Your task to perform on an android device: turn off translation in the chrome app Image 0: 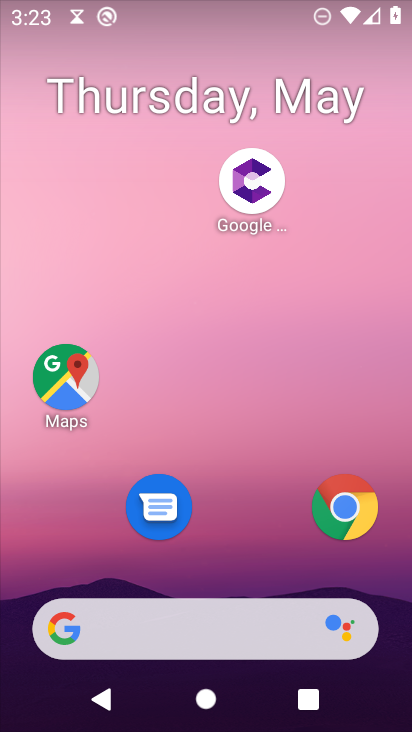
Step 0: click (343, 505)
Your task to perform on an android device: turn off translation in the chrome app Image 1: 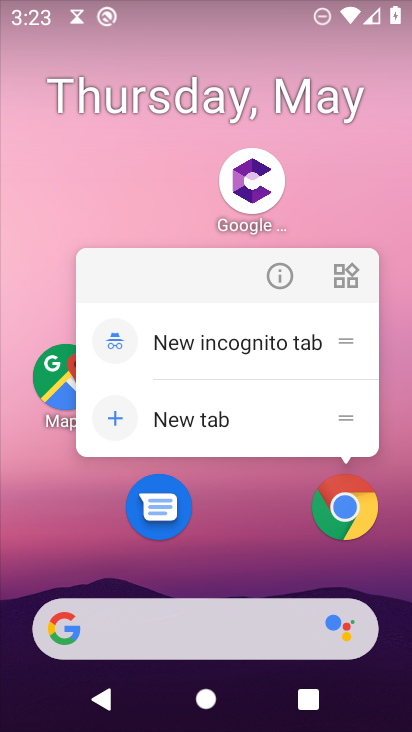
Step 1: click (344, 502)
Your task to perform on an android device: turn off translation in the chrome app Image 2: 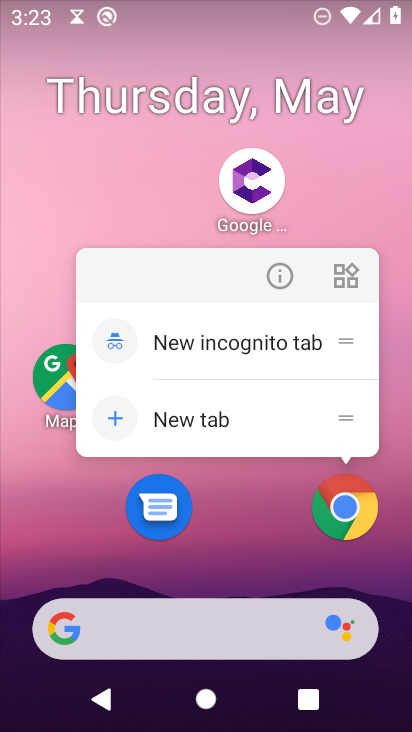
Step 2: click (368, 509)
Your task to perform on an android device: turn off translation in the chrome app Image 3: 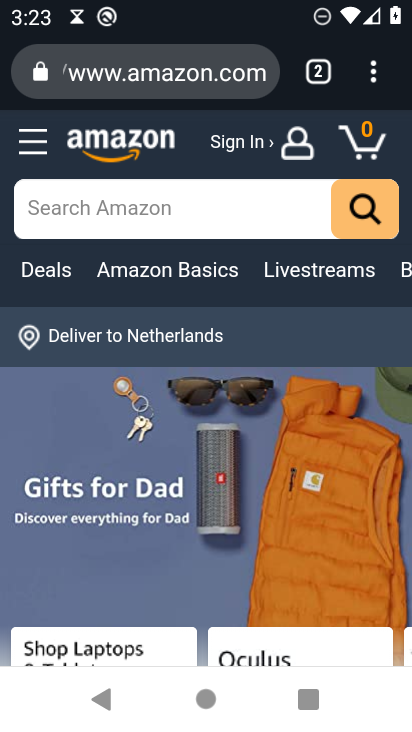
Step 3: drag from (377, 93) to (240, 511)
Your task to perform on an android device: turn off translation in the chrome app Image 4: 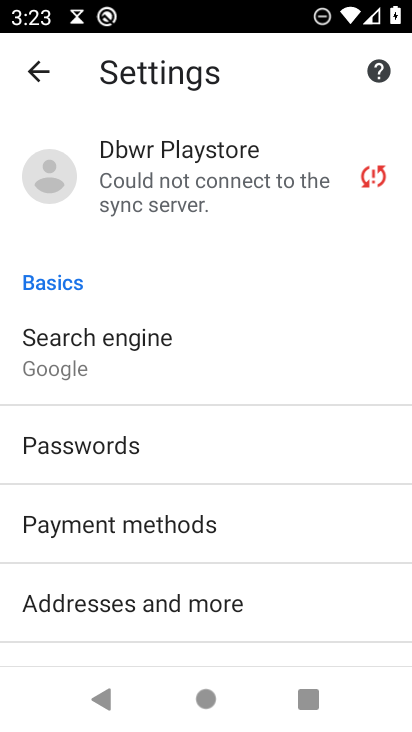
Step 4: drag from (290, 617) to (259, 285)
Your task to perform on an android device: turn off translation in the chrome app Image 5: 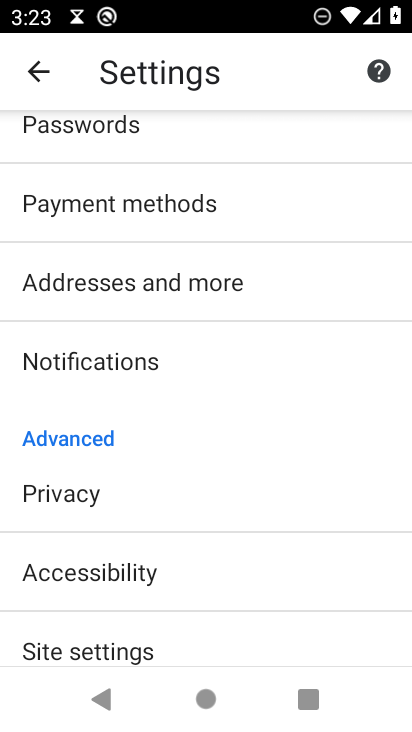
Step 5: drag from (254, 634) to (217, 301)
Your task to perform on an android device: turn off translation in the chrome app Image 6: 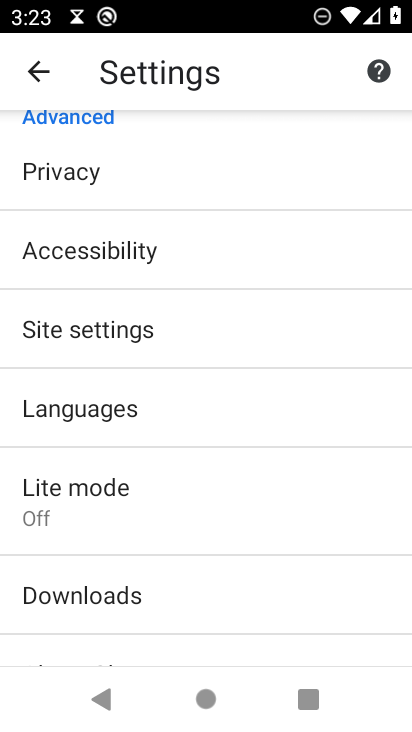
Step 6: click (95, 411)
Your task to perform on an android device: turn off translation in the chrome app Image 7: 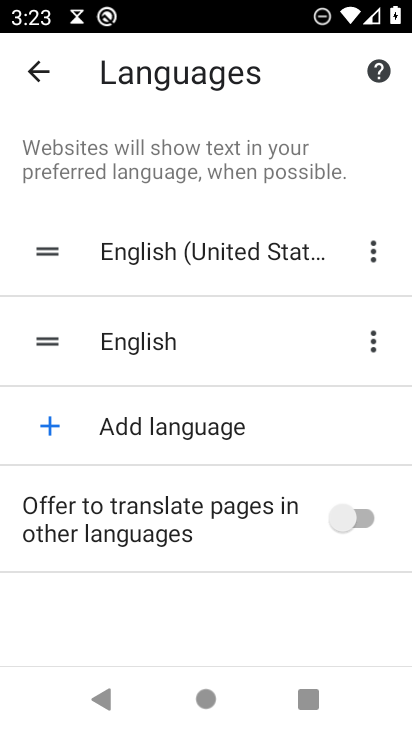
Step 7: task complete